Your task to perform on an android device: toggle translation in the chrome app Image 0: 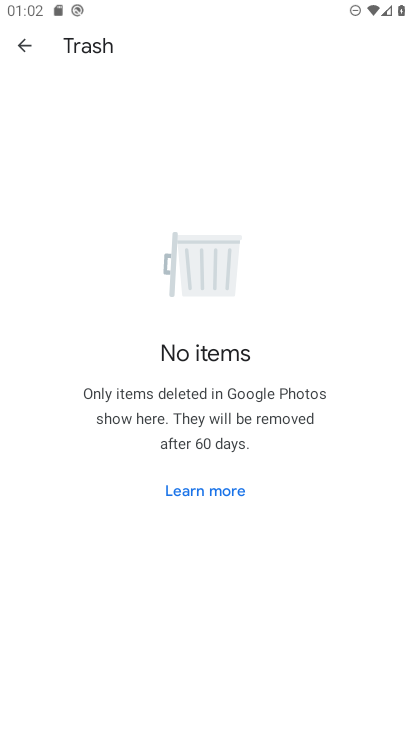
Step 0: press home button
Your task to perform on an android device: toggle translation in the chrome app Image 1: 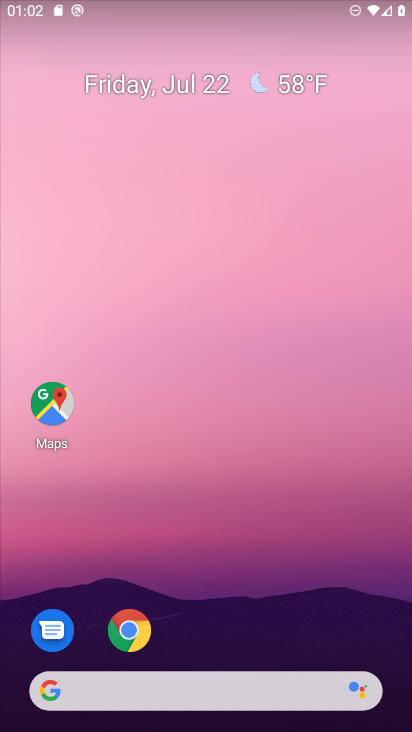
Step 1: drag from (286, 615) to (366, 79)
Your task to perform on an android device: toggle translation in the chrome app Image 2: 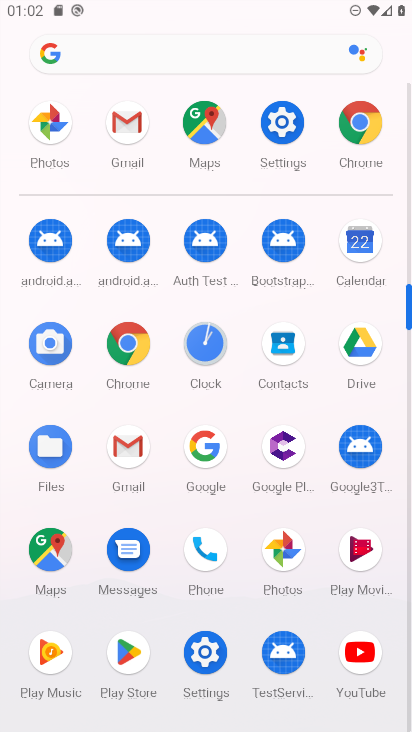
Step 2: click (121, 340)
Your task to perform on an android device: toggle translation in the chrome app Image 3: 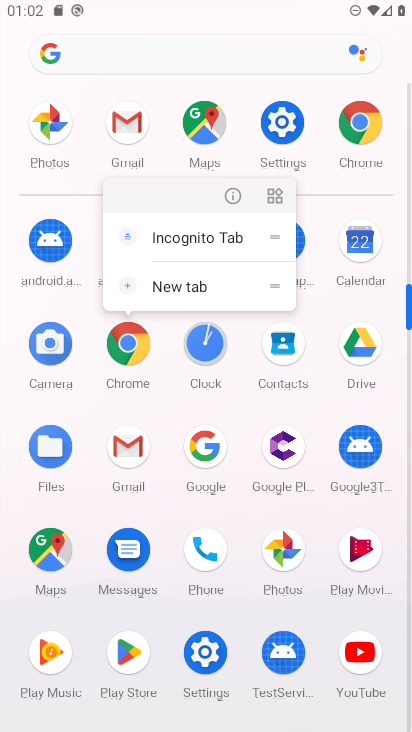
Step 3: click (133, 342)
Your task to perform on an android device: toggle translation in the chrome app Image 4: 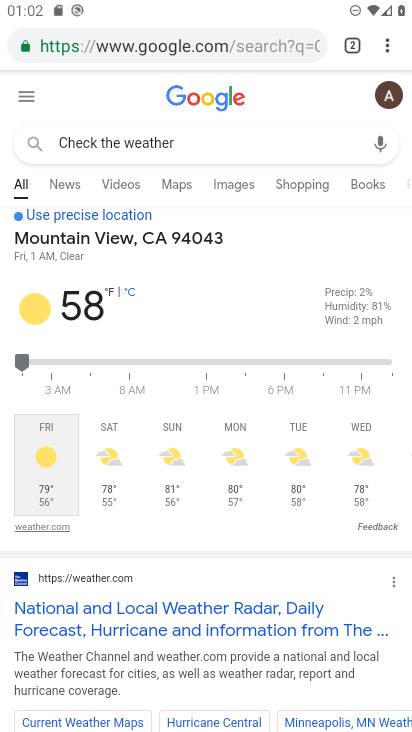
Step 4: click (388, 43)
Your task to perform on an android device: toggle translation in the chrome app Image 5: 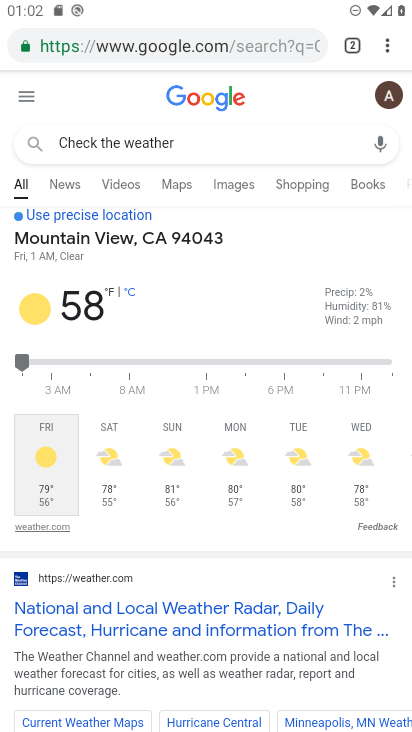
Step 5: drag from (388, 43) to (236, 505)
Your task to perform on an android device: toggle translation in the chrome app Image 6: 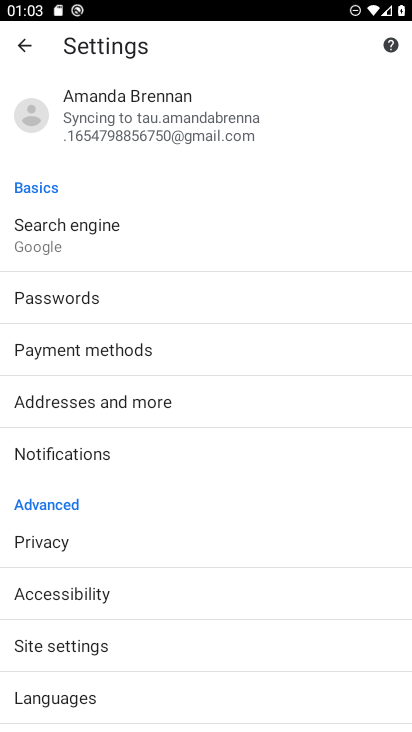
Step 6: drag from (199, 588) to (201, 285)
Your task to perform on an android device: toggle translation in the chrome app Image 7: 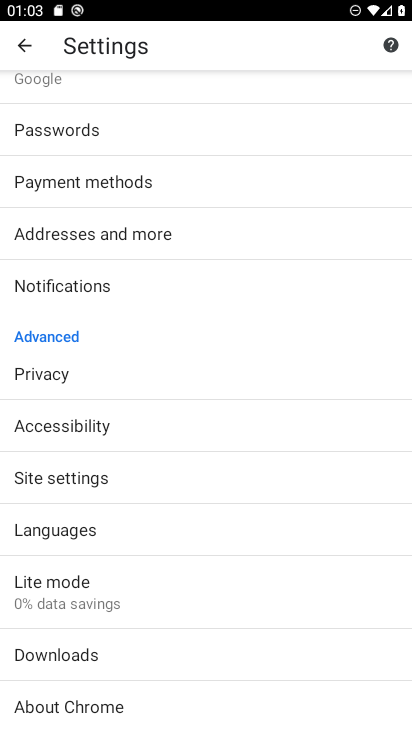
Step 7: click (92, 529)
Your task to perform on an android device: toggle translation in the chrome app Image 8: 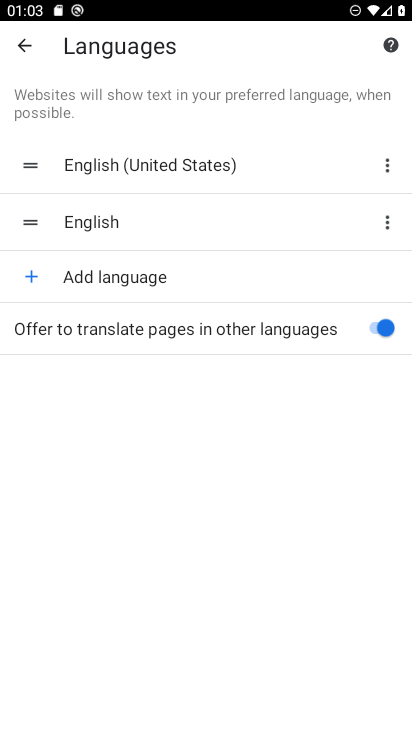
Step 8: click (295, 345)
Your task to perform on an android device: toggle translation in the chrome app Image 9: 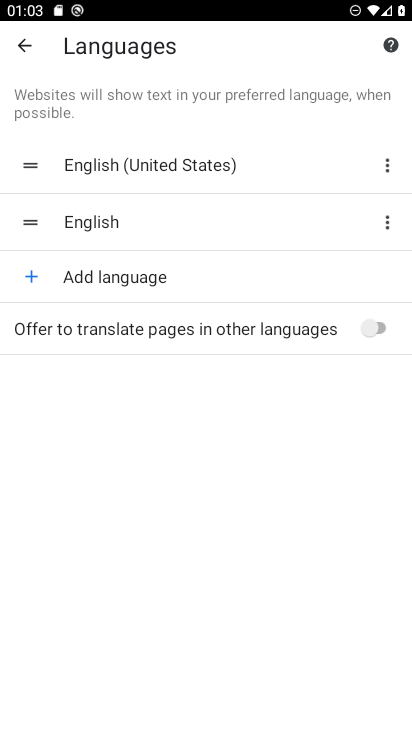
Step 9: task complete